Your task to perform on an android device: Open Amazon Image 0: 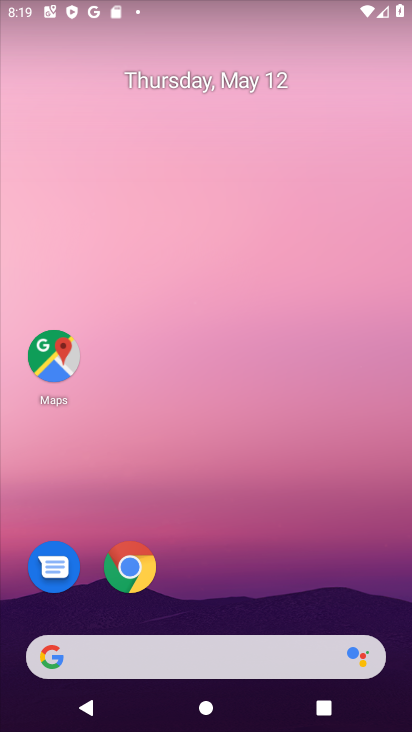
Step 0: drag from (264, 645) to (262, 238)
Your task to perform on an android device: Open Amazon Image 1: 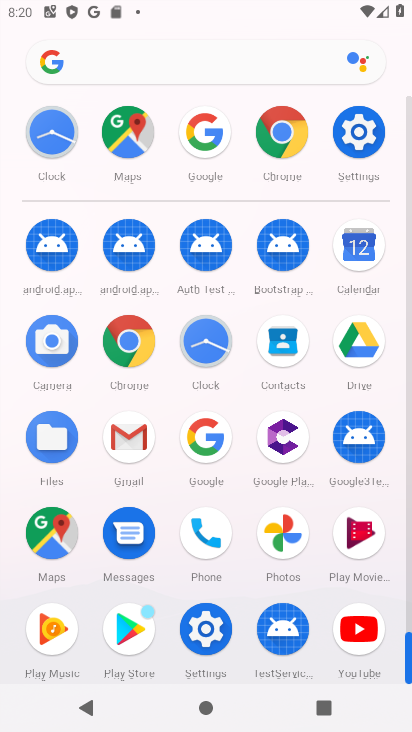
Step 1: click (280, 156)
Your task to perform on an android device: Open Amazon Image 2: 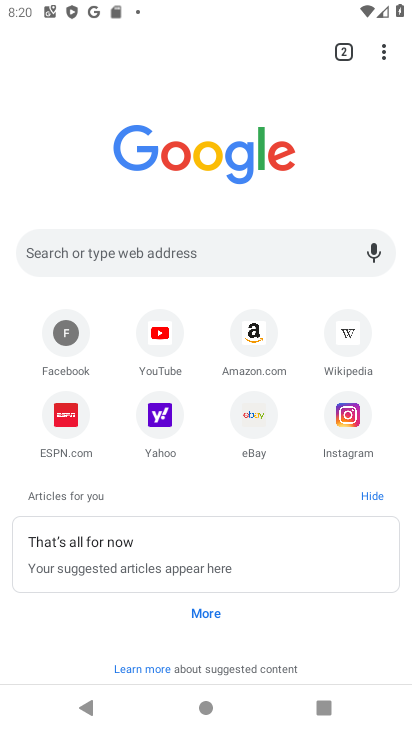
Step 2: click (241, 353)
Your task to perform on an android device: Open Amazon Image 3: 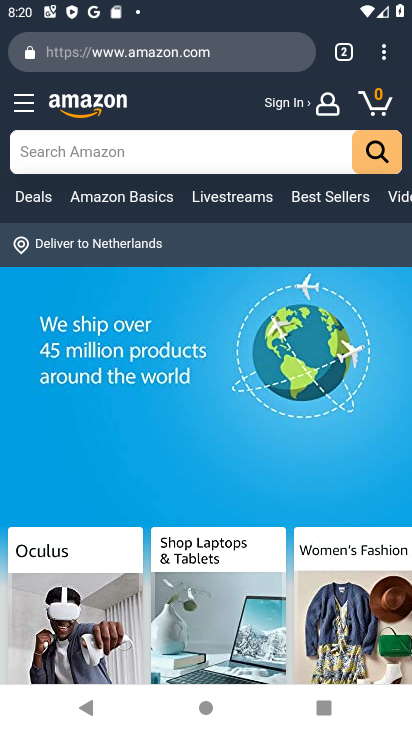
Step 3: task complete